Your task to perform on an android device: Show me the alarms in the clock app Image 0: 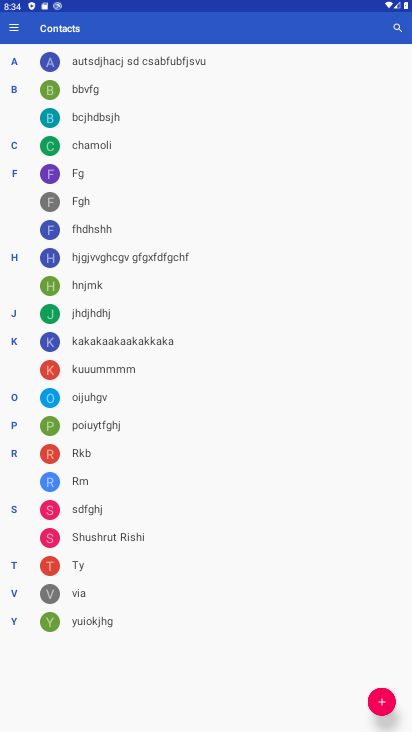
Step 0: press home button
Your task to perform on an android device: Show me the alarms in the clock app Image 1: 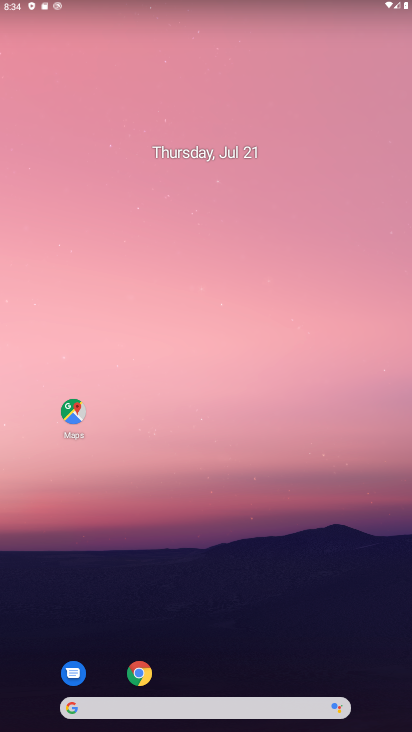
Step 1: drag from (241, 648) to (241, 86)
Your task to perform on an android device: Show me the alarms in the clock app Image 2: 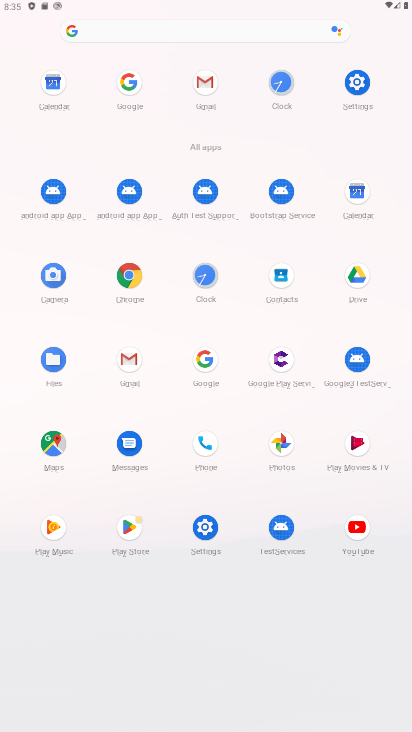
Step 2: click (206, 277)
Your task to perform on an android device: Show me the alarms in the clock app Image 3: 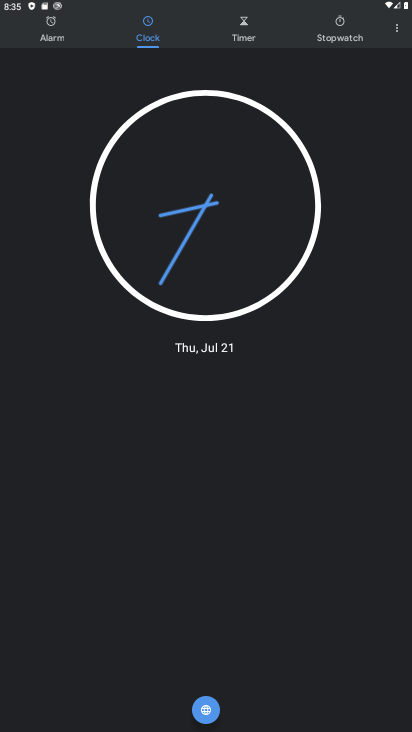
Step 3: click (44, 28)
Your task to perform on an android device: Show me the alarms in the clock app Image 4: 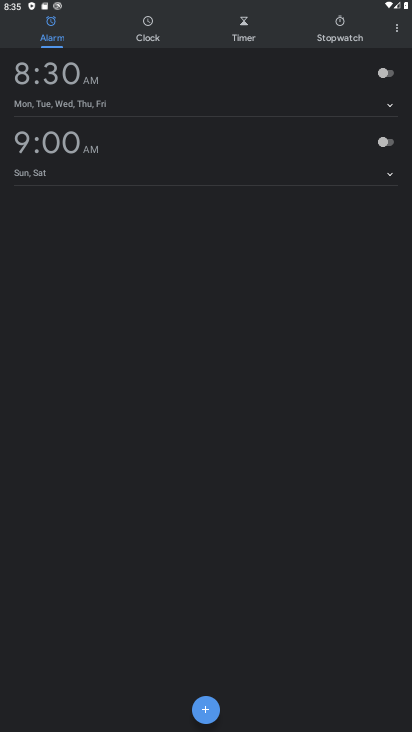
Step 4: task complete